Your task to perform on an android device: Show me popular games on the Play Store Image 0: 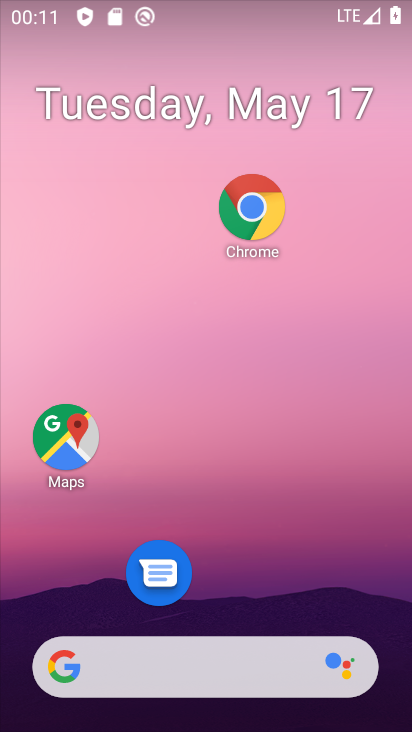
Step 0: drag from (205, 694) to (280, 77)
Your task to perform on an android device: Show me popular games on the Play Store Image 1: 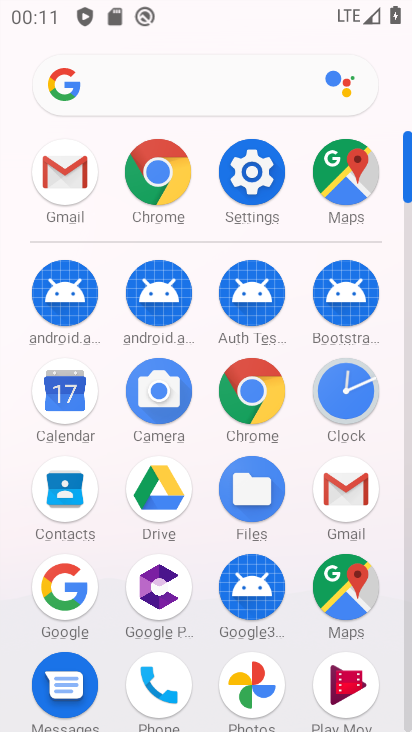
Step 1: drag from (301, 649) to (283, 158)
Your task to perform on an android device: Show me popular games on the Play Store Image 2: 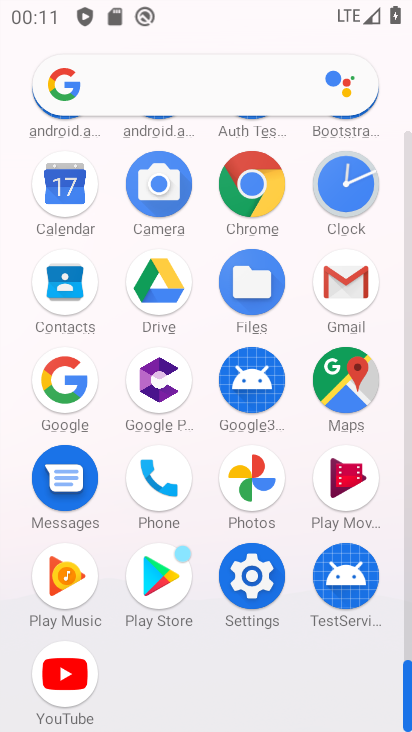
Step 2: click (150, 594)
Your task to perform on an android device: Show me popular games on the Play Store Image 3: 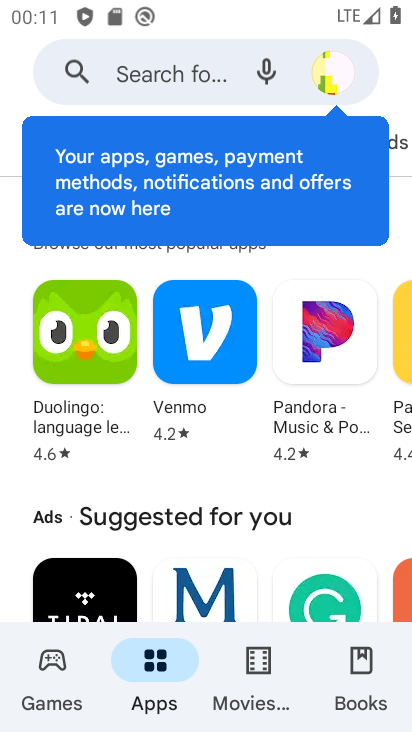
Step 3: drag from (282, 269) to (283, 673)
Your task to perform on an android device: Show me popular games on the Play Store Image 4: 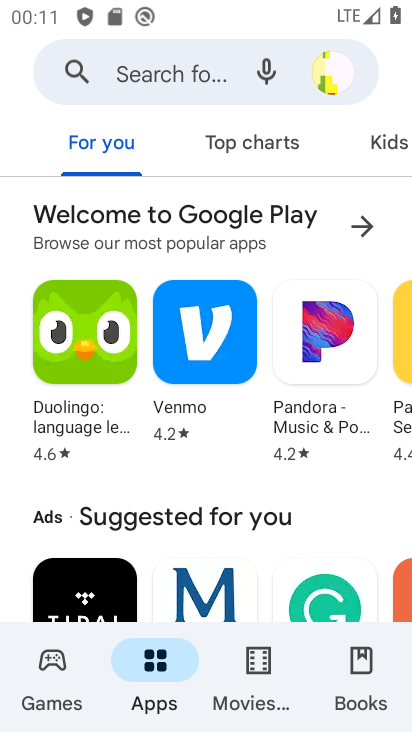
Step 4: drag from (248, 580) to (238, 56)
Your task to perform on an android device: Show me popular games on the Play Store Image 5: 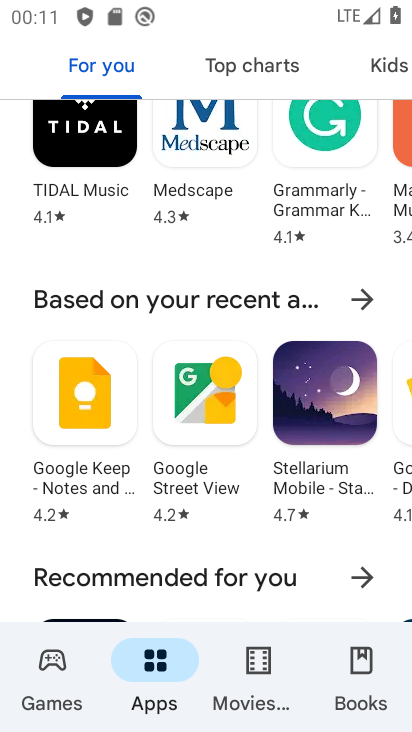
Step 5: click (28, 673)
Your task to perform on an android device: Show me popular games on the Play Store Image 6: 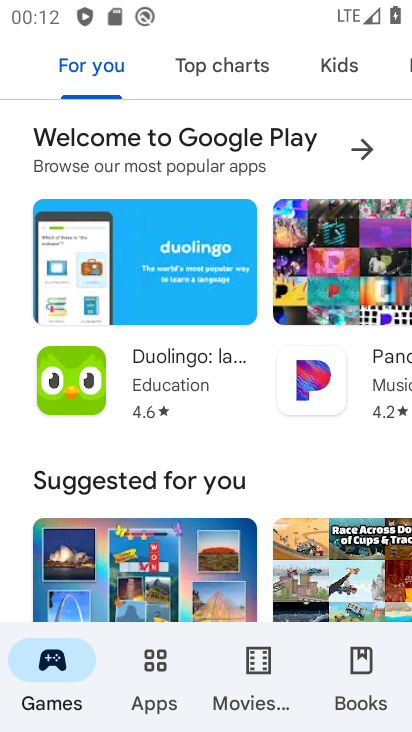
Step 6: drag from (244, 225) to (271, 636)
Your task to perform on an android device: Show me popular games on the Play Store Image 7: 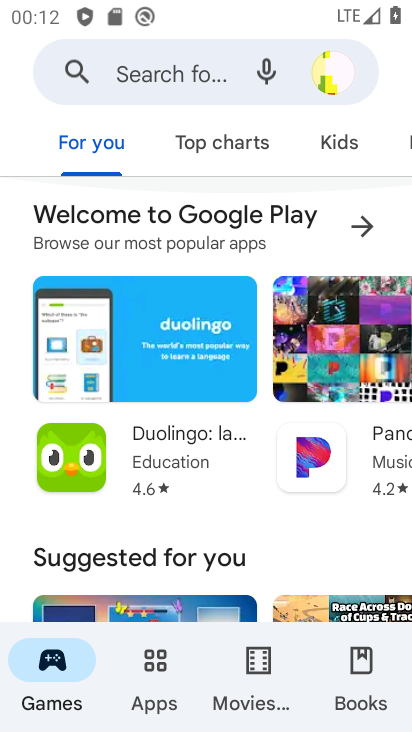
Step 7: drag from (249, 547) to (331, 24)
Your task to perform on an android device: Show me popular games on the Play Store Image 8: 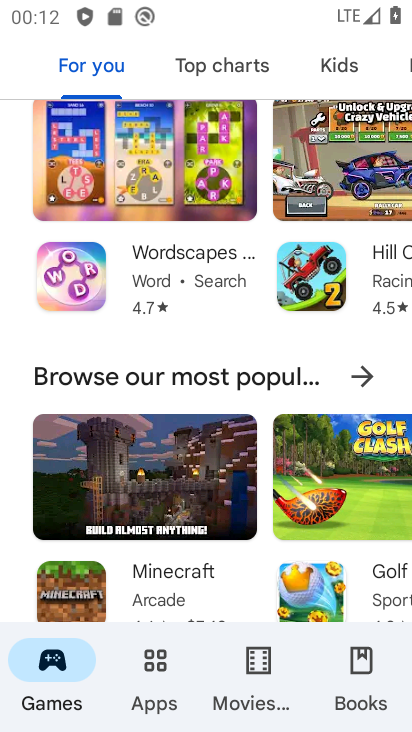
Step 8: click (356, 373)
Your task to perform on an android device: Show me popular games on the Play Store Image 9: 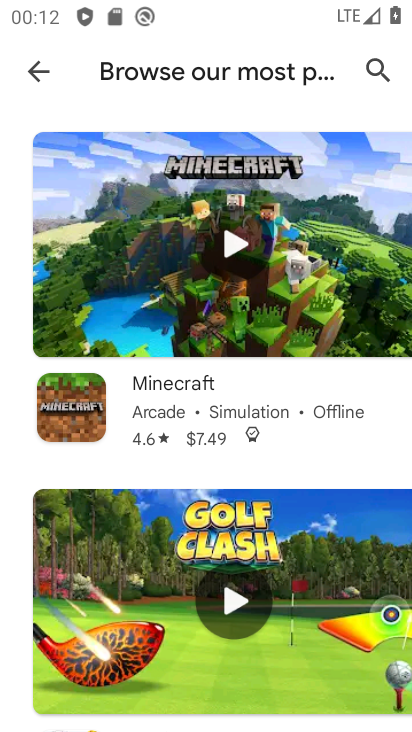
Step 9: task complete